Your task to perform on an android device: Search for seafood restaurants on Google Maps Image 0: 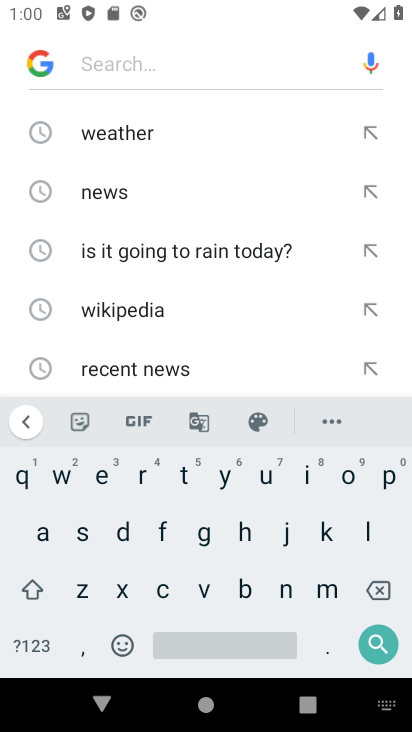
Step 0: press home button
Your task to perform on an android device: Search for seafood restaurants on Google Maps Image 1: 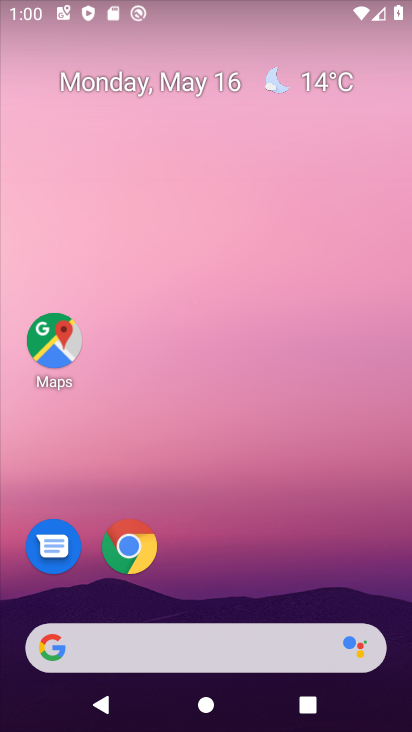
Step 1: drag from (264, 680) to (129, 232)
Your task to perform on an android device: Search for seafood restaurants on Google Maps Image 2: 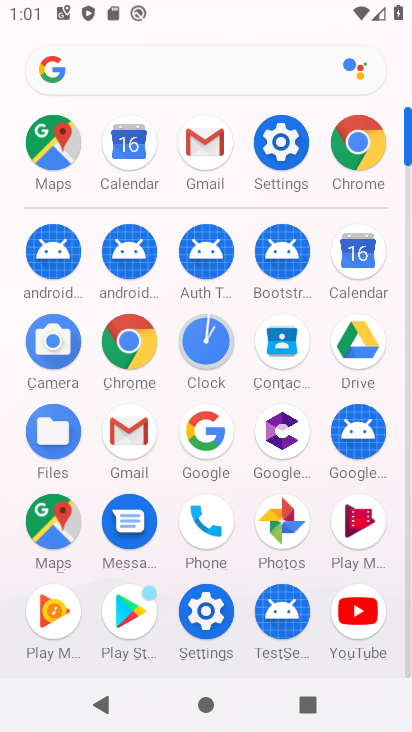
Step 2: click (58, 530)
Your task to perform on an android device: Search for seafood restaurants on Google Maps Image 3: 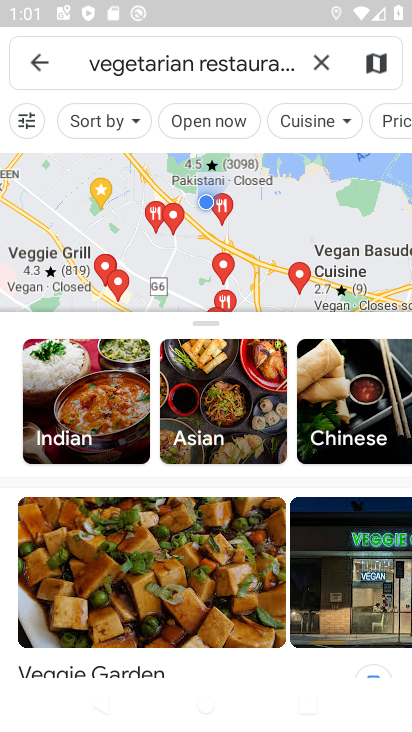
Step 3: click (311, 63)
Your task to perform on an android device: Search for seafood restaurants on Google Maps Image 4: 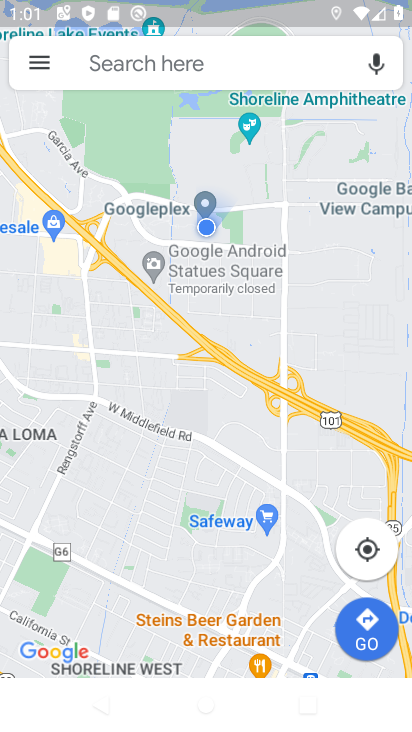
Step 4: click (184, 60)
Your task to perform on an android device: Search for seafood restaurants on Google Maps Image 5: 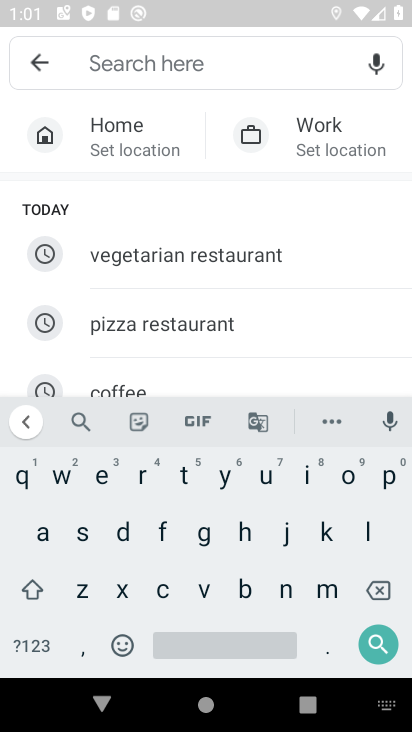
Step 5: click (85, 527)
Your task to perform on an android device: Search for seafood restaurants on Google Maps Image 6: 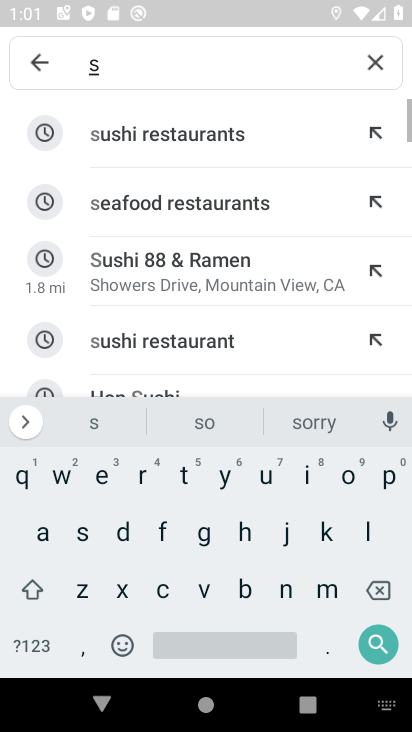
Step 6: click (96, 483)
Your task to perform on an android device: Search for seafood restaurants on Google Maps Image 7: 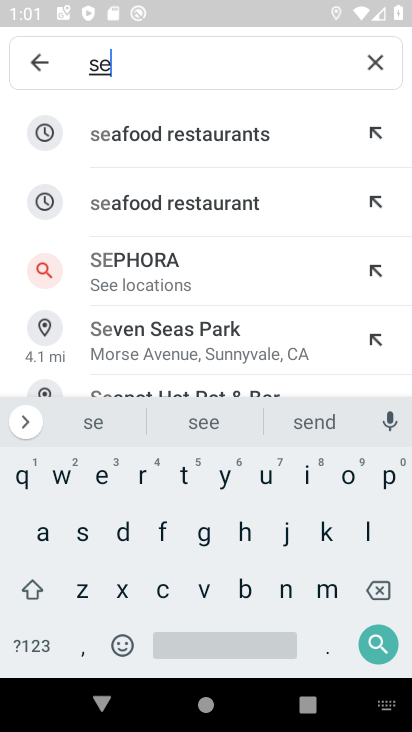
Step 7: click (157, 134)
Your task to perform on an android device: Search for seafood restaurants on Google Maps Image 8: 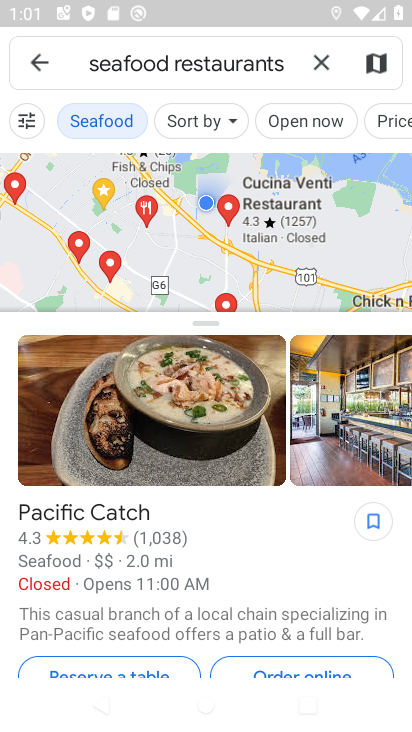
Step 8: click (122, 193)
Your task to perform on an android device: Search for seafood restaurants on Google Maps Image 9: 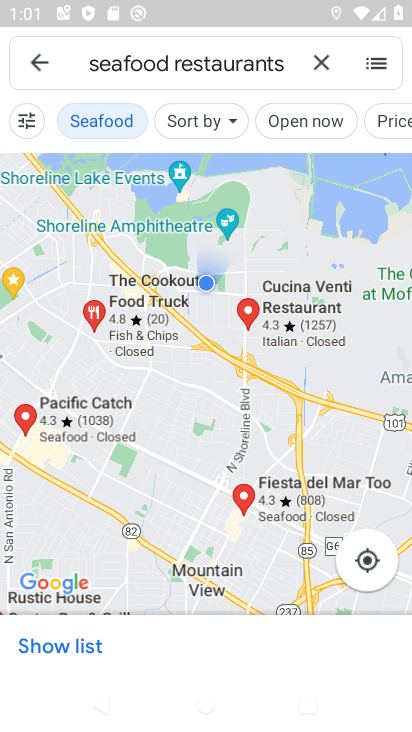
Step 9: task complete